Your task to perform on an android device: toggle wifi Image 0: 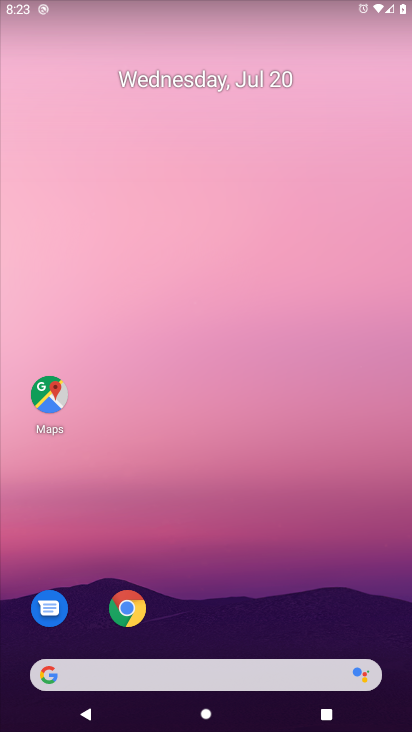
Step 0: drag from (202, 618) to (271, 123)
Your task to perform on an android device: toggle wifi Image 1: 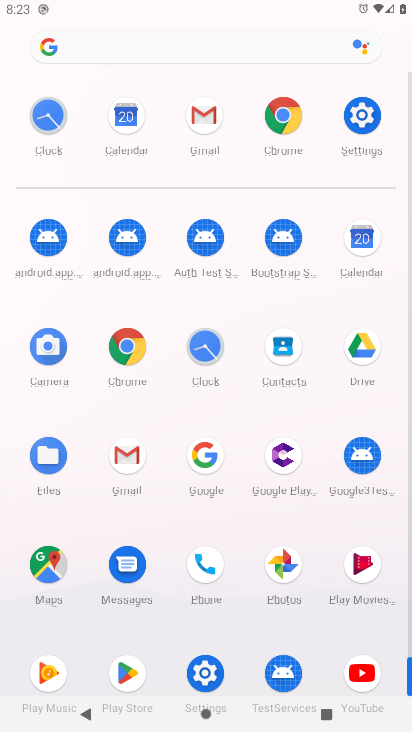
Step 1: click (347, 119)
Your task to perform on an android device: toggle wifi Image 2: 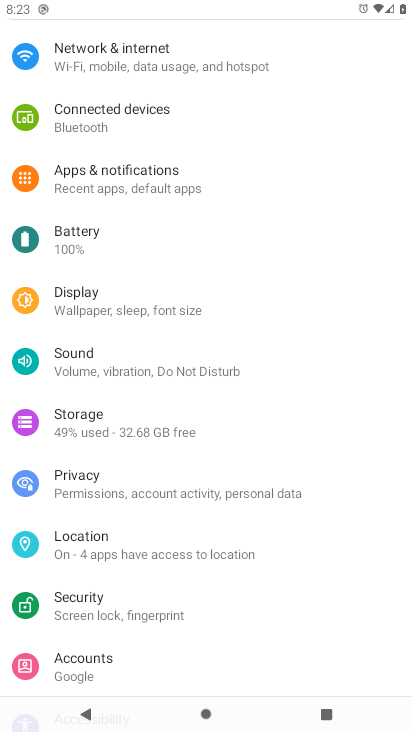
Step 2: click (143, 73)
Your task to perform on an android device: toggle wifi Image 3: 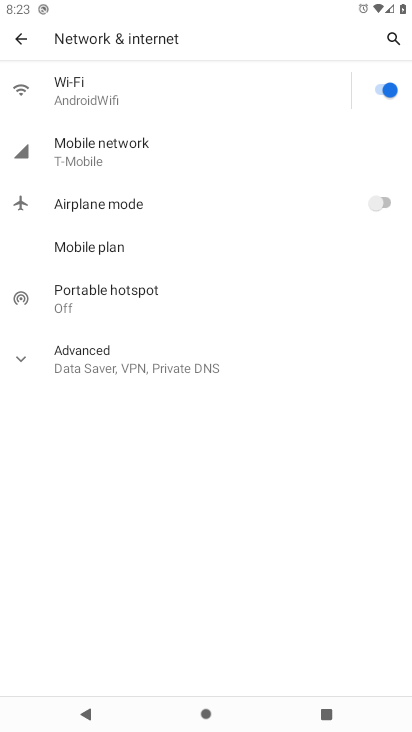
Step 3: click (374, 82)
Your task to perform on an android device: toggle wifi Image 4: 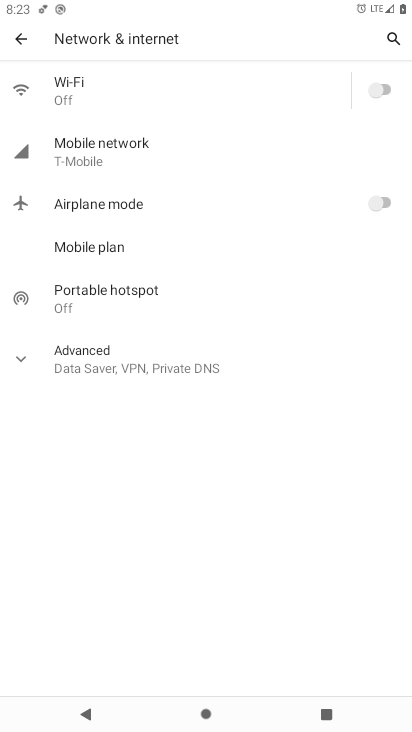
Step 4: task complete